Your task to perform on an android device: Search for sushi restaurants on Maps Image 0: 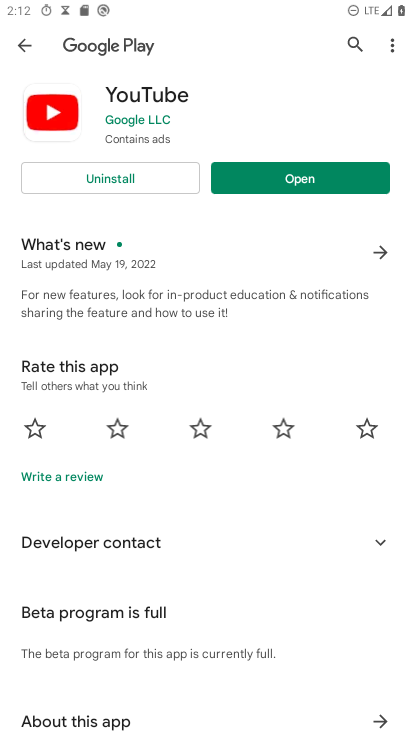
Step 0: press home button
Your task to perform on an android device: Search for sushi restaurants on Maps Image 1: 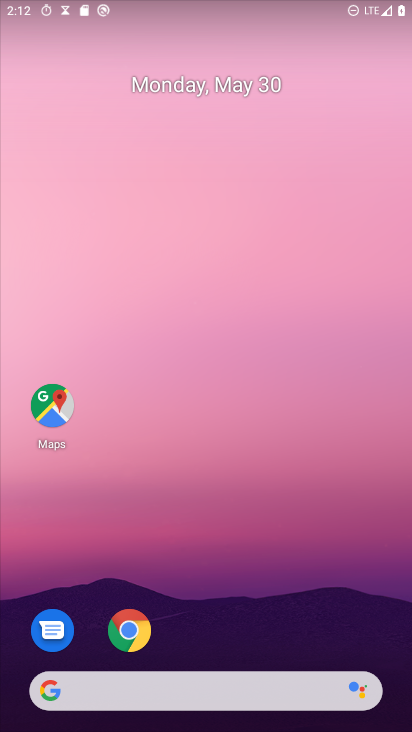
Step 1: drag from (272, 699) to (237, 190)
Your task to perform on an android device: Search for sushi restaurants on Maps Image 2: 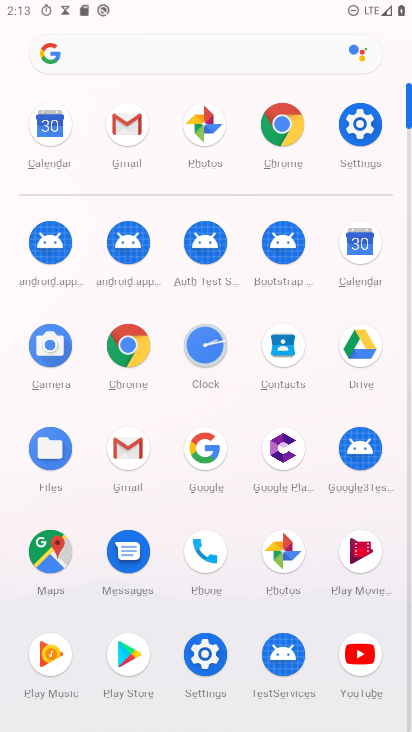
Step 2: click (64, 549)
Your task to perform on an android device: Search for sushi restaurants on Maps Image 3: 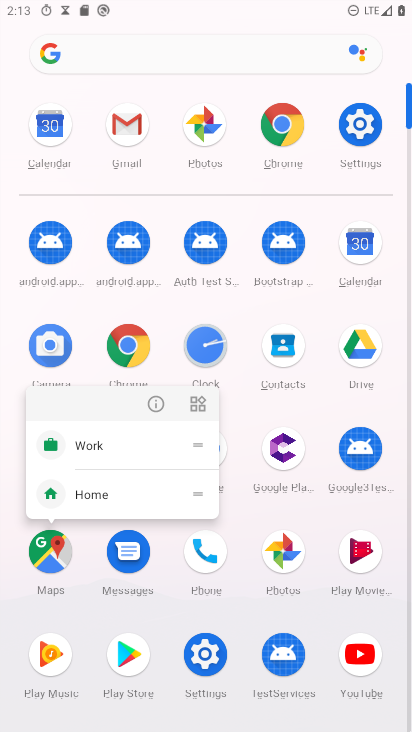
Step 3: click (63, 552)
Your task to perform on an android device: Search for sushi restaurants on Maps Image 4: 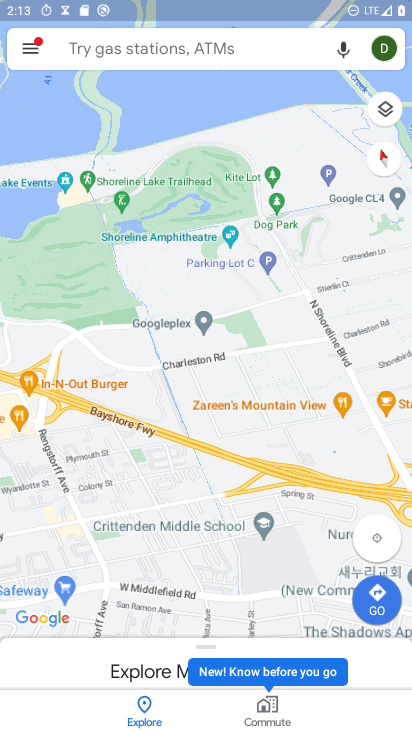
Step 4: click (155, 37)
Your task to perform on an android device: Search for sushi restaurants on Maps Image 5: 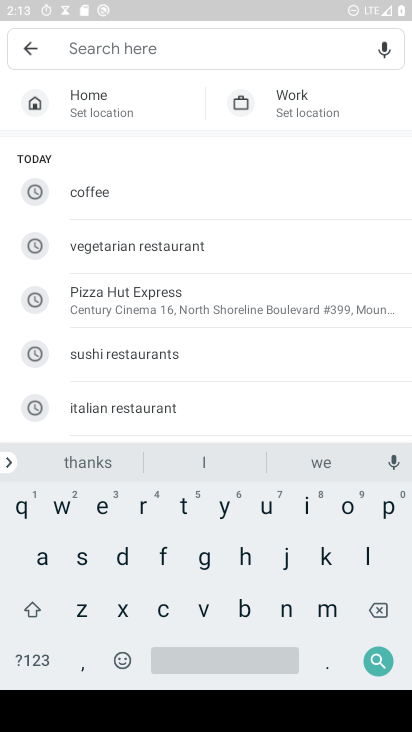
Step 5: click (142, 359)
Your task to perform on an android device: Search for sushi restaurants on Maps Image 6: 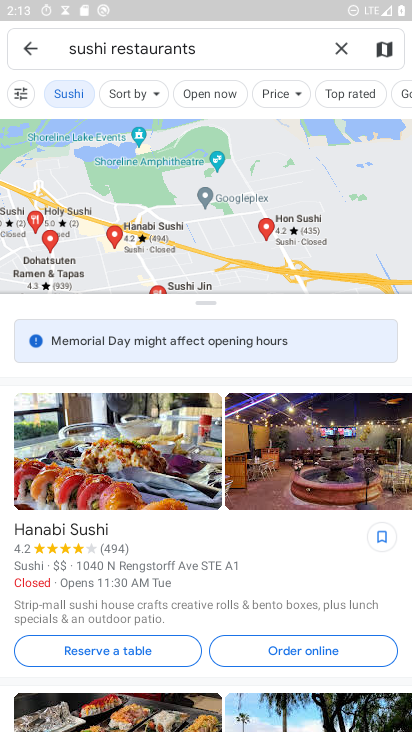
Step 6: click (191, 236)
Your task to perform on an android device: Search for sushi restaurants on Maps Image 7: 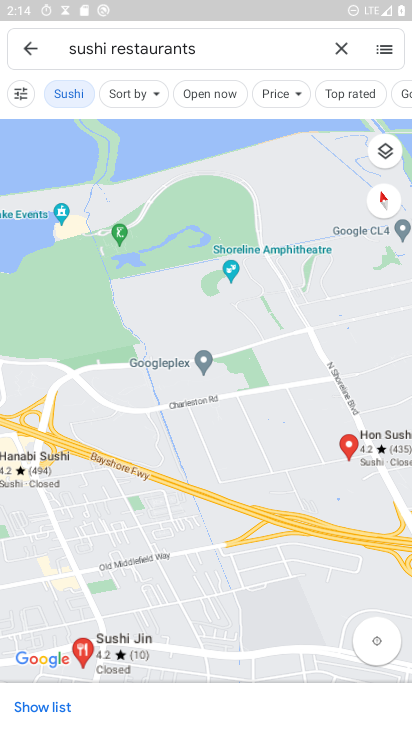
Step 7: task complete